Your task to perform on an android device: View the shopping cart on amazon. Add usb-a to the cart on amazon Image 0: 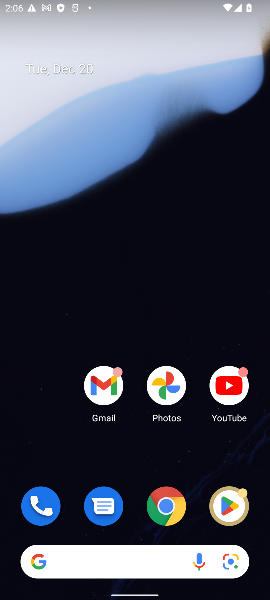
Step 0: click (166, 506)
Your task to perform on an android device: View the shopping cart on amazon. Add usb-a to the cart on amazon Image 1: 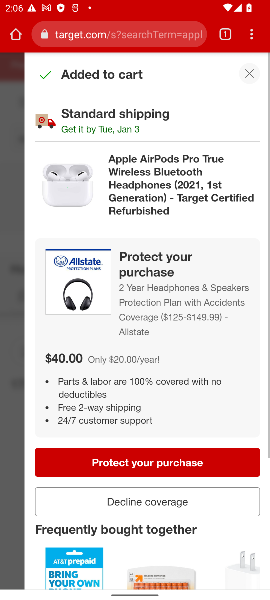
Step 1: click (102, 38)
Your task to perform on an android device: View the shopping cart on amazon. Add usb-a to the cart on amazon Image 2: 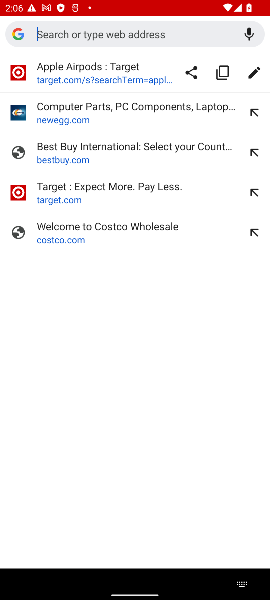
Step 2: type "AMAZON"
Your task to perform on an android device: View the shopping cart on amazon. Add usb-a to the cart on amazon Image 3: 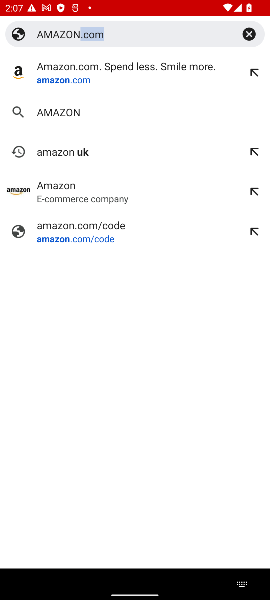
Step 3: click (91, 73)
Your task to perform on an android device: View the shopping cart on amazon. Add usb-a to the cart on amazon Image 4: 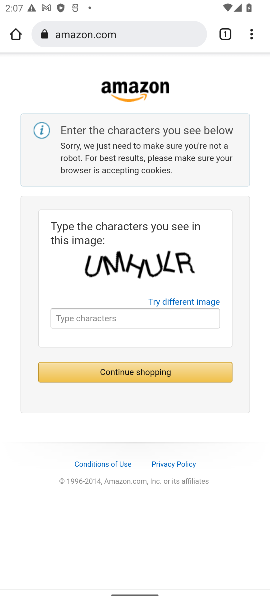
Step 4: click (135, 315)
Your task to perform on an android device: View the shopping cart on amazon. Add usb-a to the cart on amazon Image 5: 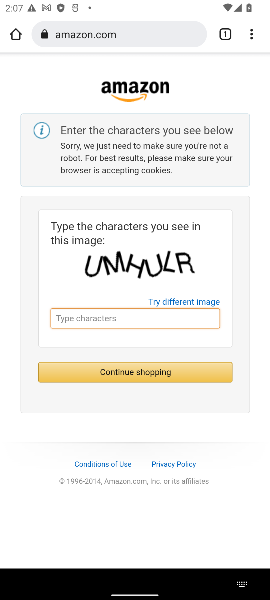
Step 5: type "umhulr"
Your task to perform on an android device: View the shopping cart on amazon. Add usb-a to the cart on amazon Image 6: 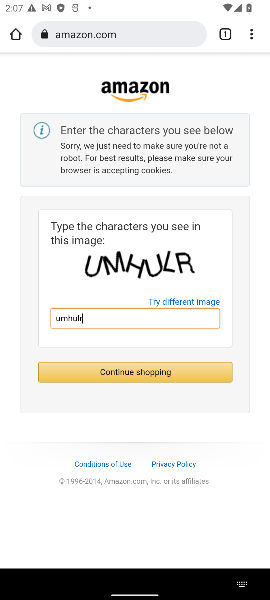
Step 6: click (142, 370)
Your task to perform on an android device: View the shopping cart on amazon. Add usb-a to the cart on amazon Image 7: 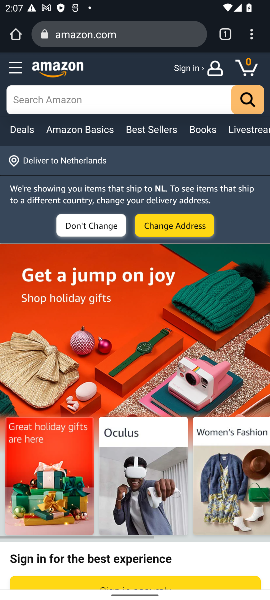
Step 7: click (129, 96)
Your task to perform on an android device: View the shopping cart on amazon. Add usb-a to the cart on amazon Image 8: 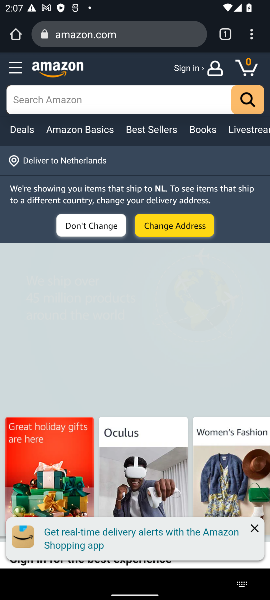
Step 8: type "usb-a"
Your task to perform on an android device: View the shopping cart on amazon. Add usb-a to the cart on amazon Image 9: 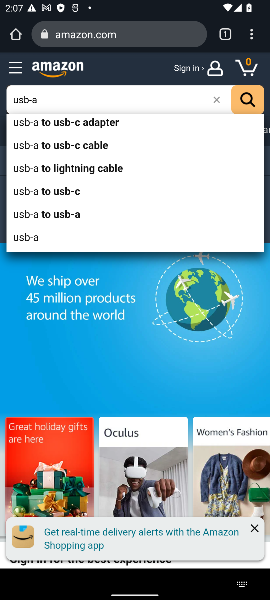
Step 9: click (36, 120)
Your task to perform on an android device: View the shopping cart on amazon. Add usb-a to the cart on amazon Image 10: 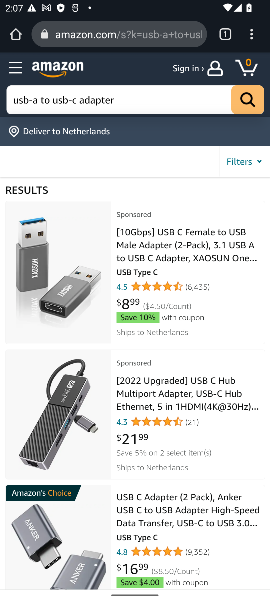
Step 10: click (208, 256)
Your task to perform on an android device: View the shopping cart on amazon. Add usb-a to the cart on amazon Image 11: 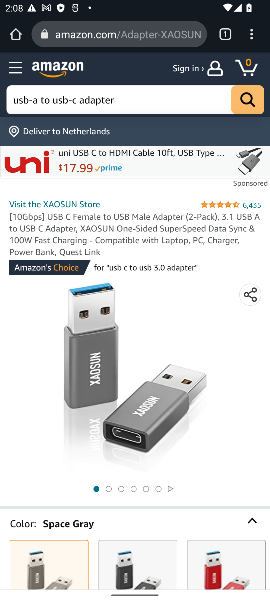
Step 11: drag from (154, 497) to (116, 156)
Your task to perform on an android device: View the shopping cart on amazon. Add usb-a to the cart on amazon Image 12: 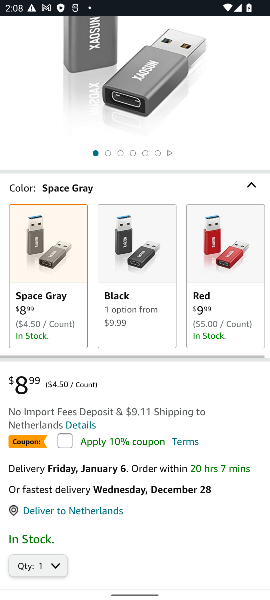
Step 12: drag from (161, 518) to (159, 122)
Your task to perform on an android device: View the shopping cart on amazon. Add usb-a to the cart on amazon Image 13: 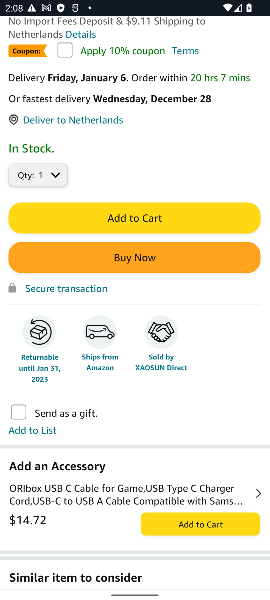
Step 13: click (143, 217)
Your task to perform on an android device: View the shopping cart on amazon. Add usb-a to the cart on amazon Image 14: 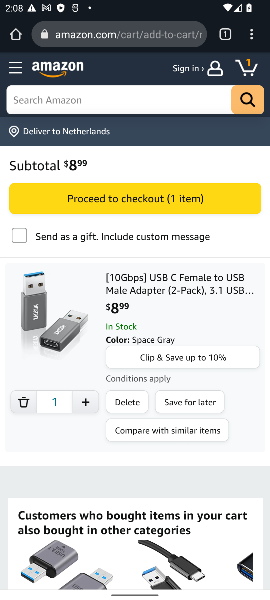
Step 14: task complete